Your task to perform on an android device: turn on notifications settings in the gmail app Image 0: 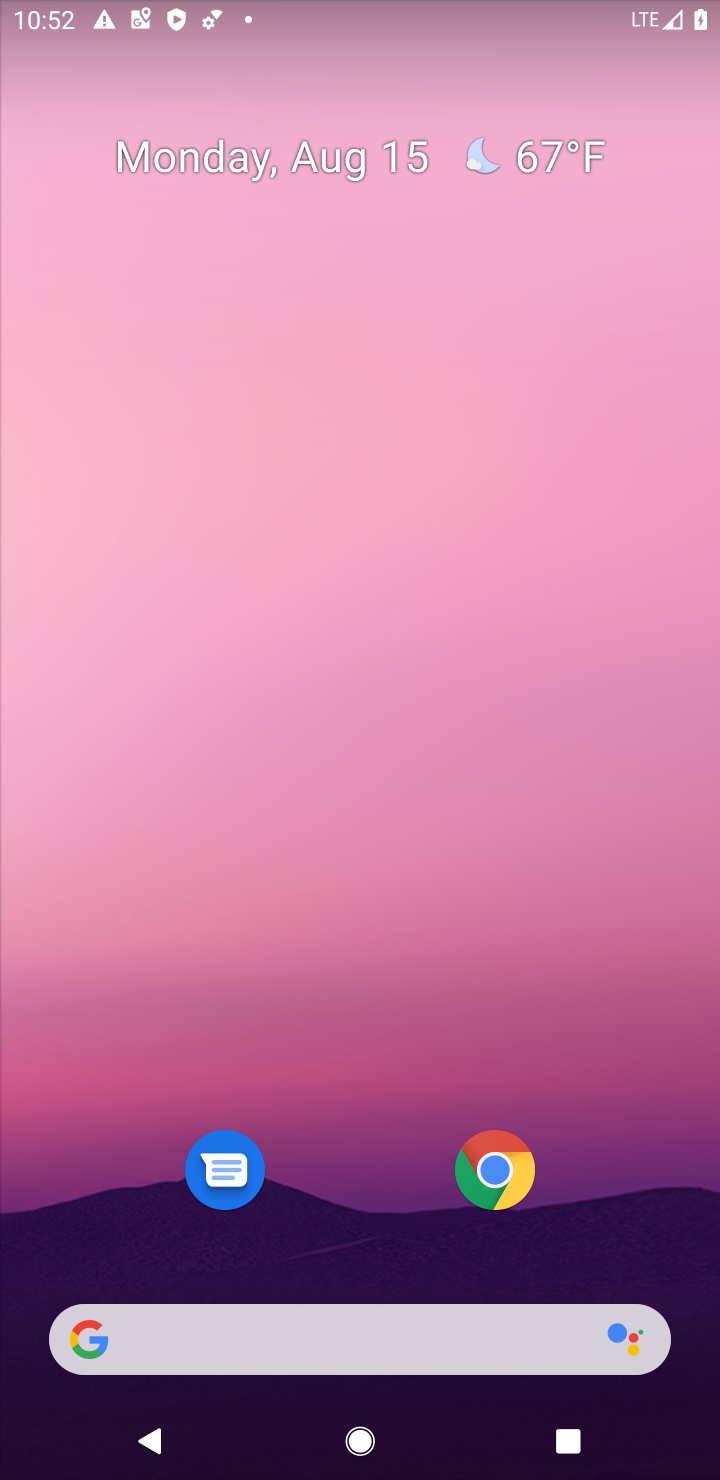
Step 0: press home button
Your task to perform on an android device: turn on notifications settings in the gmail app Image 1: 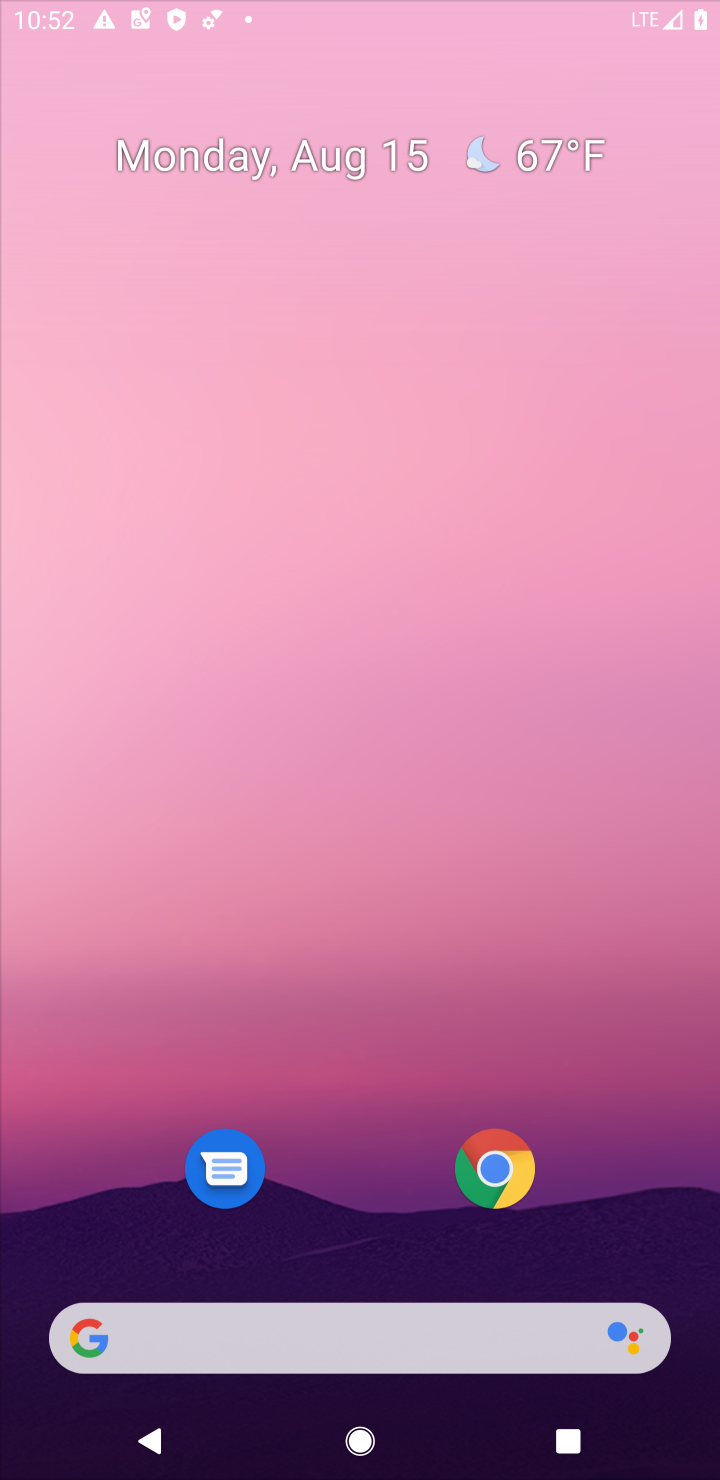
Step 1: drag from (405, 732) to (409, 0)
Your task to perform on an android device: turn on notifications settings in the gmail app Image 2: 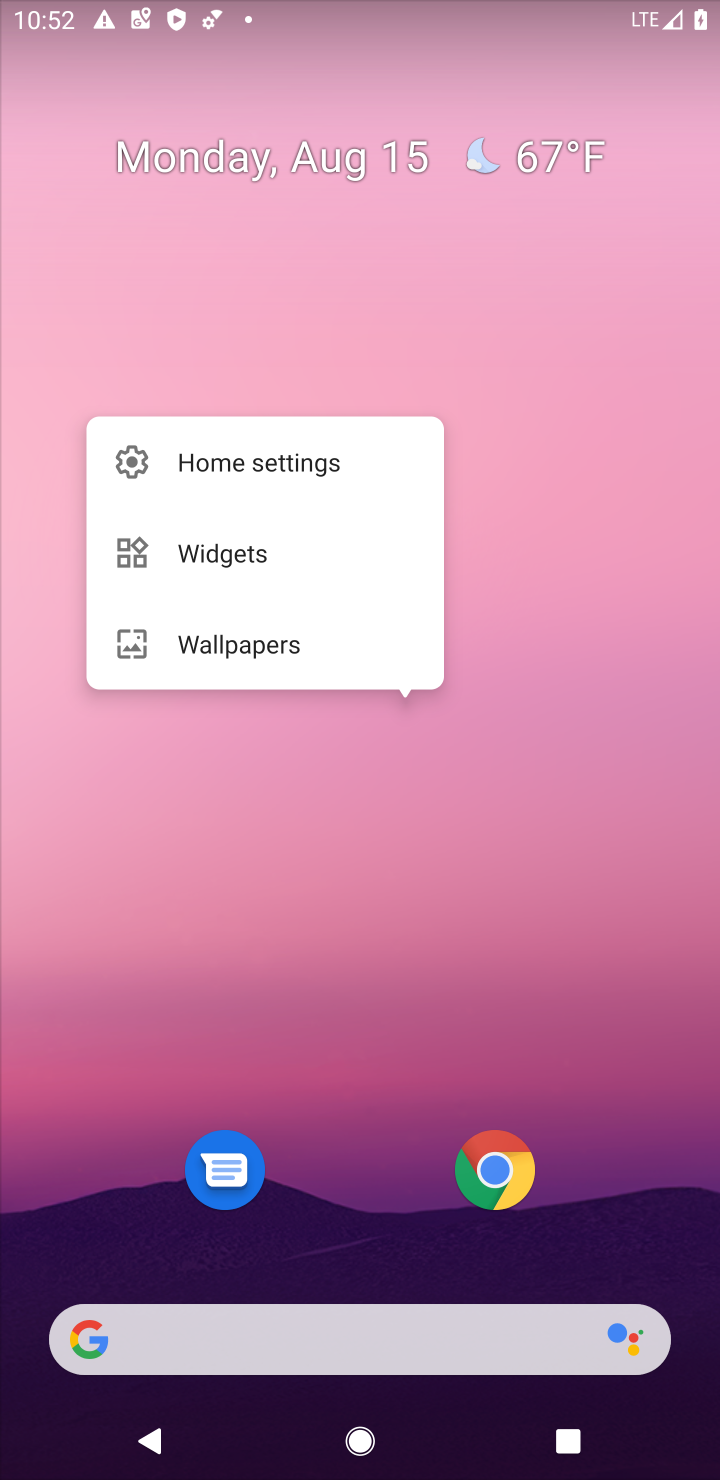
Step 2: click (391, 1029)
Your task to perform on an android device: turn on notifications settings in the gmail app Image 3: 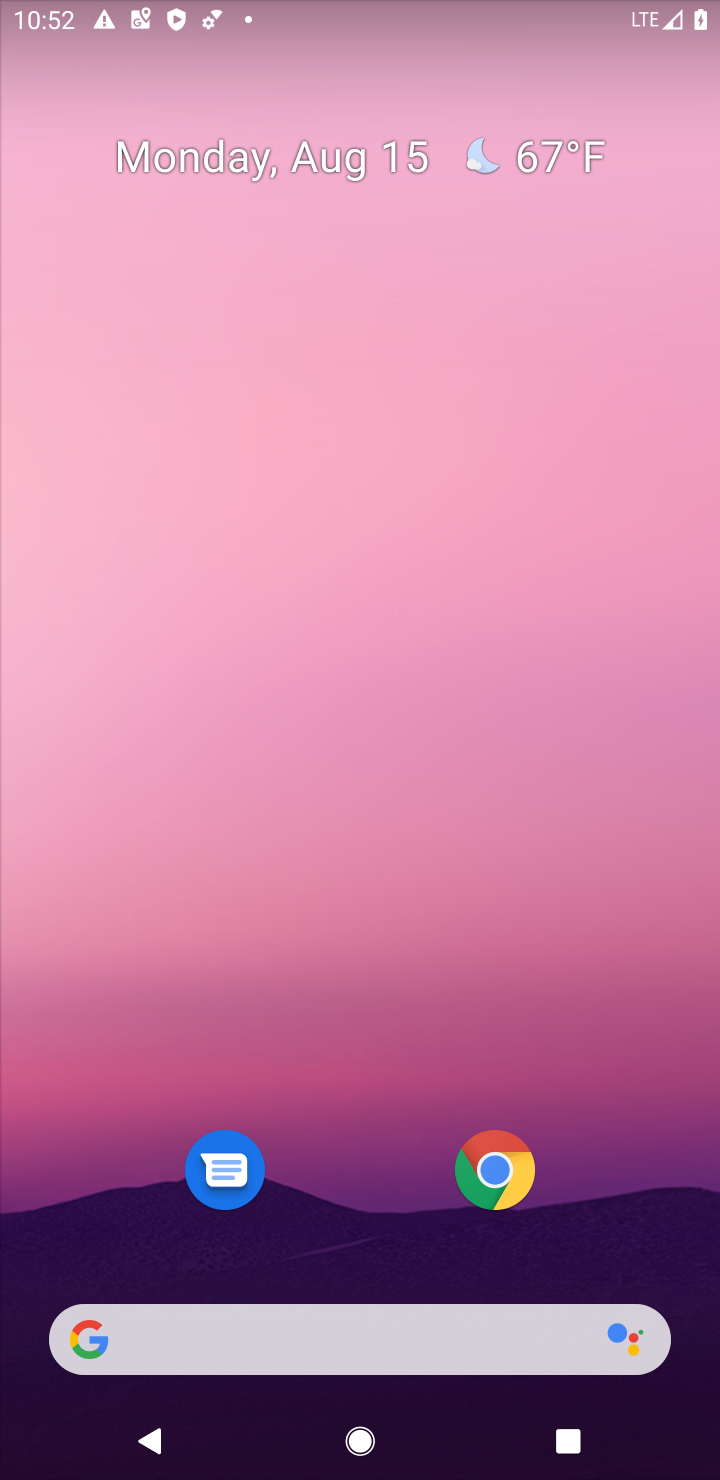
Step 3: drag from (391, 1239) to (445, 109)
Your task to perform on an android device: turn on notifications settings in the gmail app Image 4: 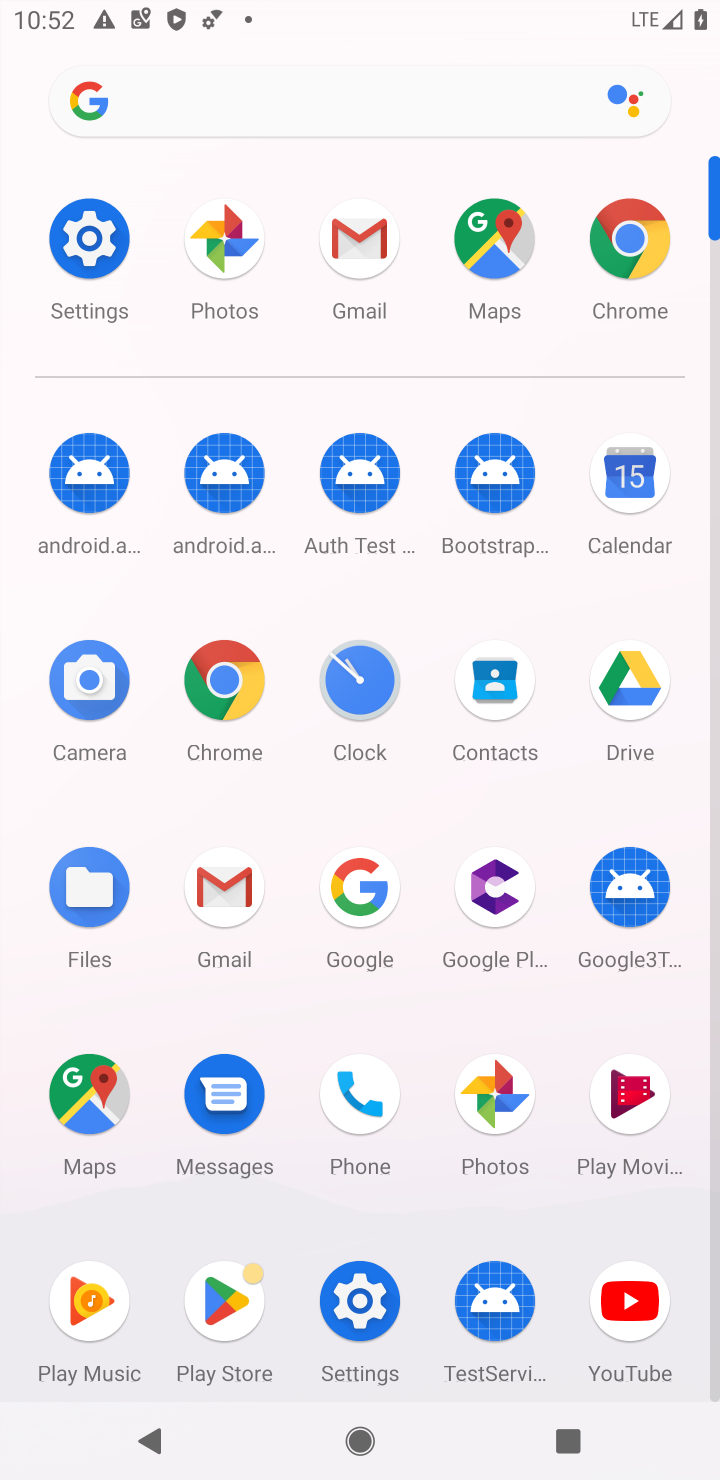
Step 4: click (386, 718)
Your task to perform on an android device: turn on notifications settings in the gmail app Image 5: 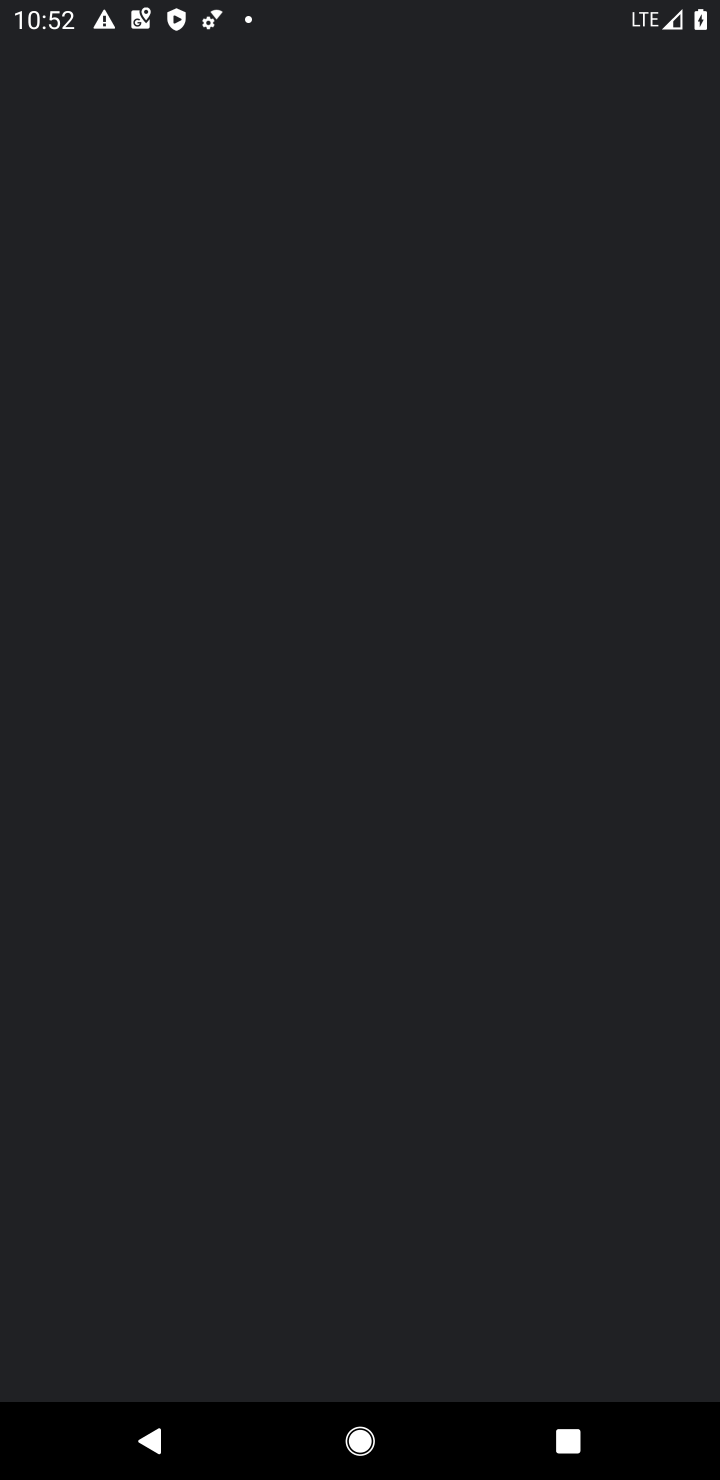
Step 5: click (234, 866)
Your task to perform on an android device: turn on notifications settings in the gmail app Image 6: 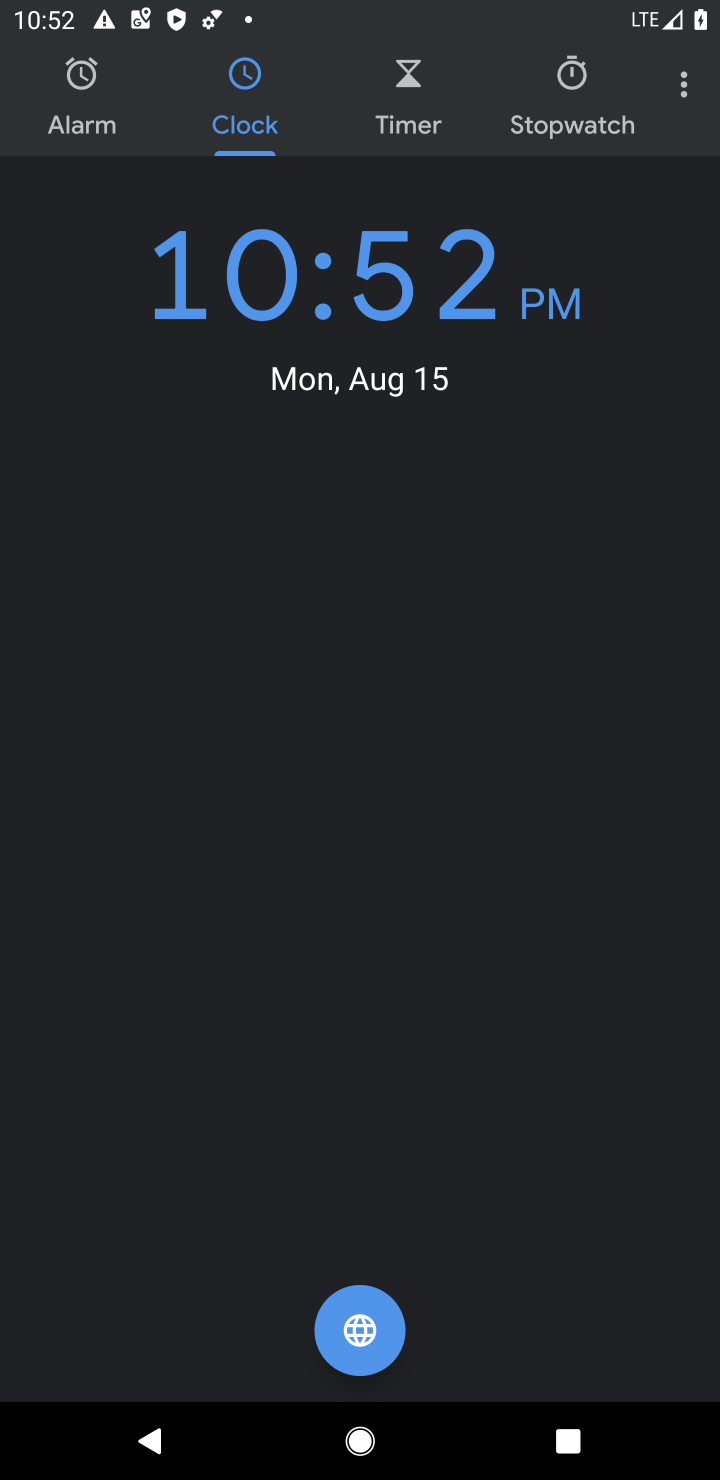
Step 6: press home button
Your task to perform on an android device: turn on notifications settings in the gmail app Image 7: 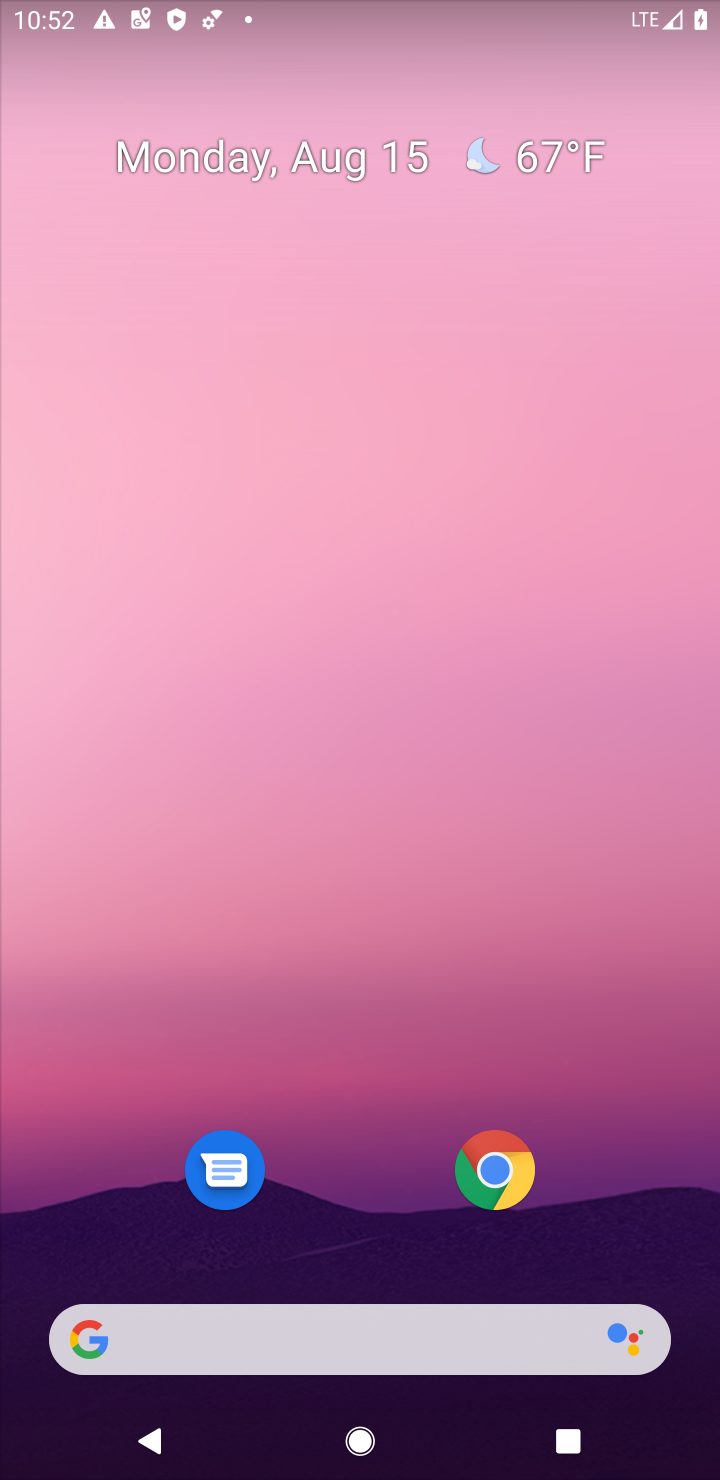
Step 7: drag from (392, 1180) to (434, 117)
Your task to perform on an android device: turn on notifications settings in the gmail app Image 8: 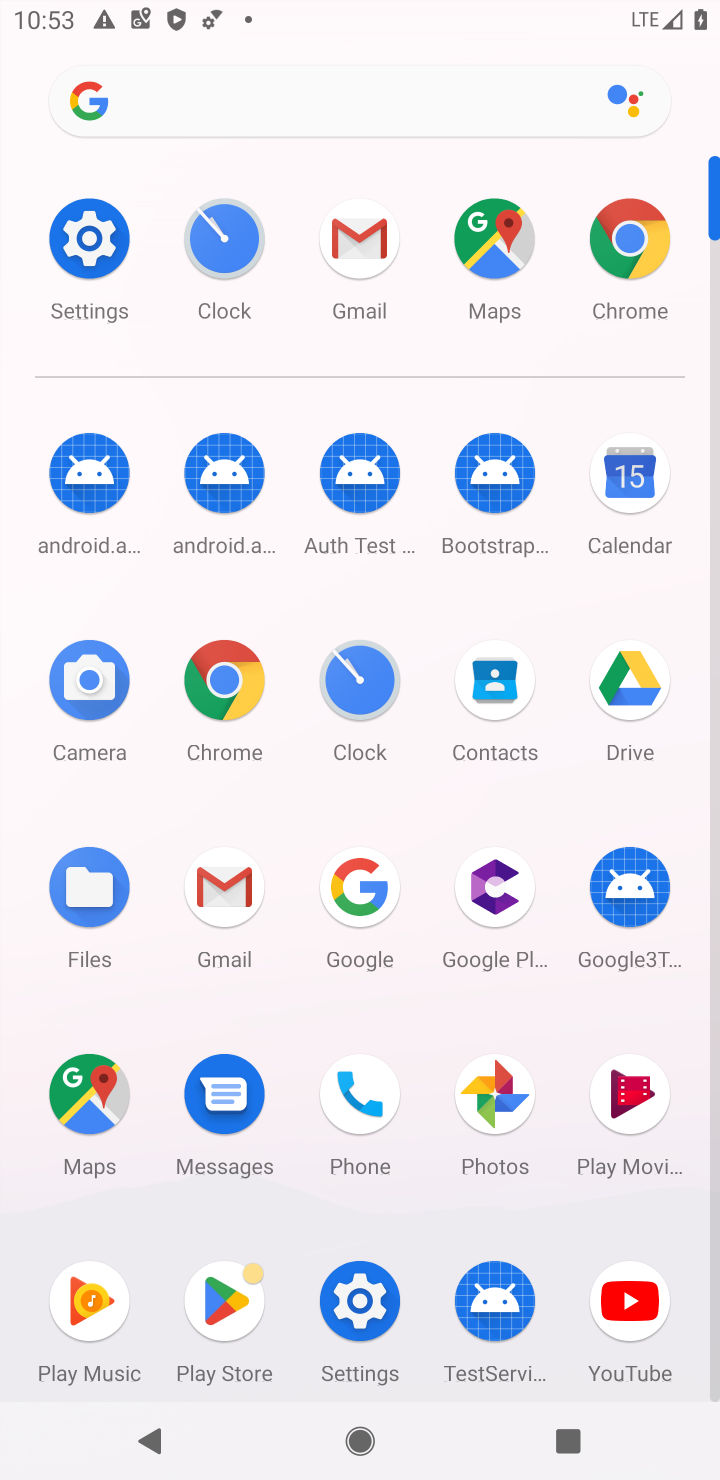
Step 8: click (211, 861)
Your task to perform on an android device: turn on notifications settings in the gmail app Image 9: 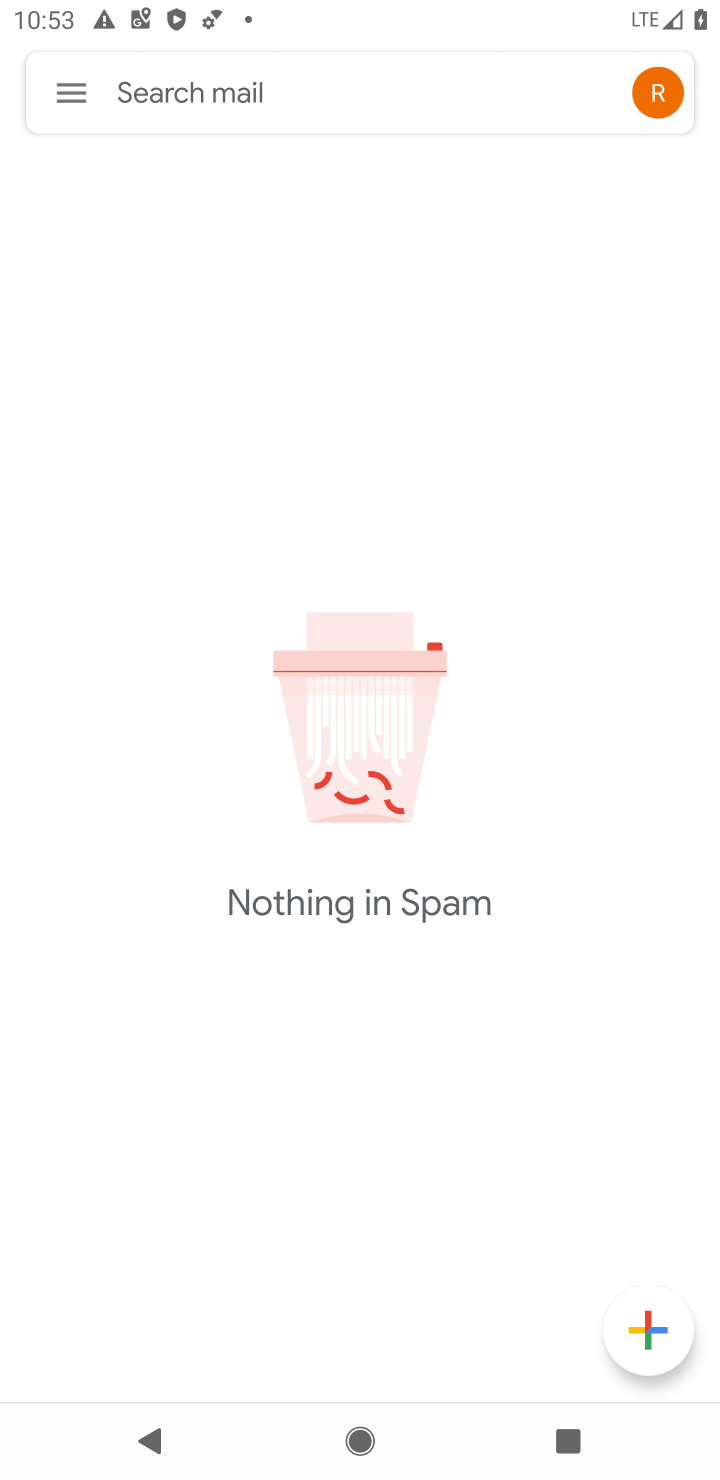
Step 9: click (65, 72)
Your task to perform on an android device: turn on notifications settings in the gmail app Image 10: 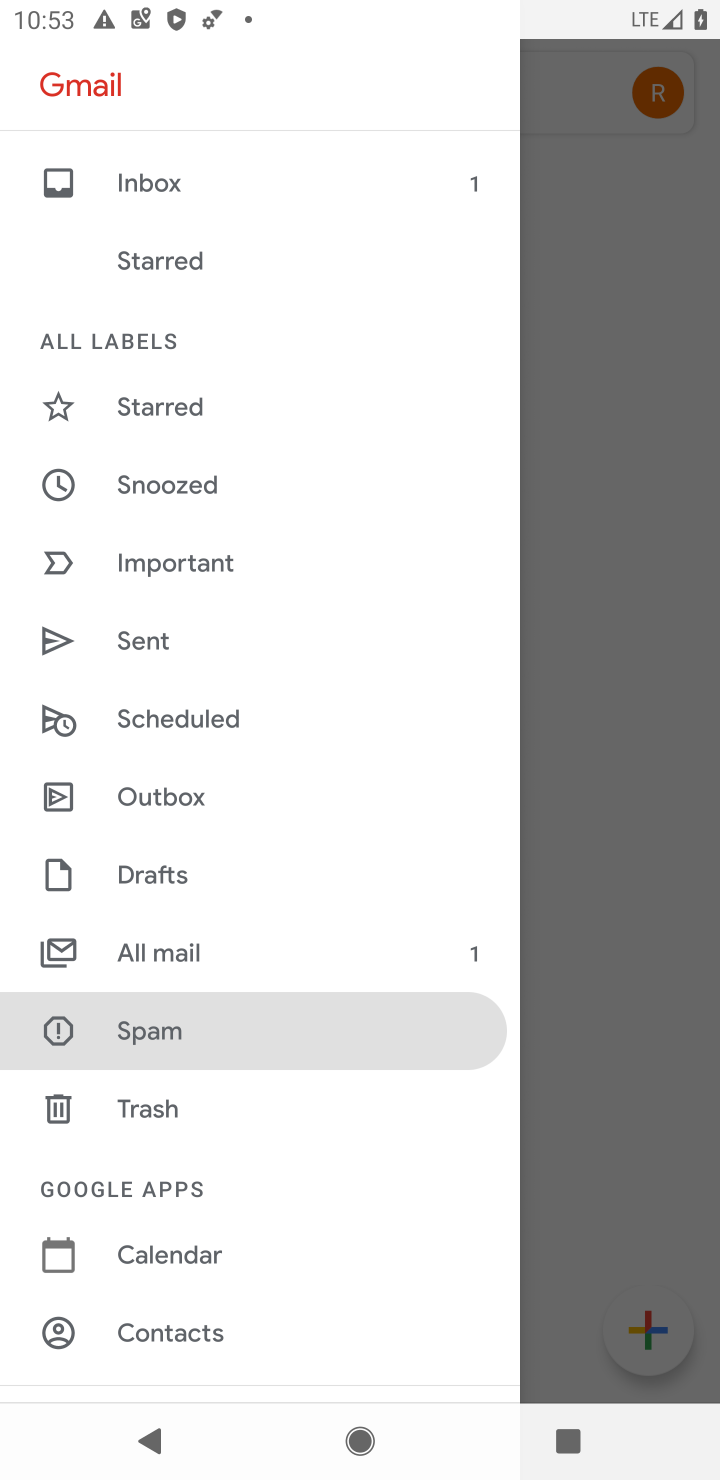
Step 10: drag from (153, 1305) to (168, 298)
Your task to perform on an android device: turn on notifications settings in the gmail app Image 11: 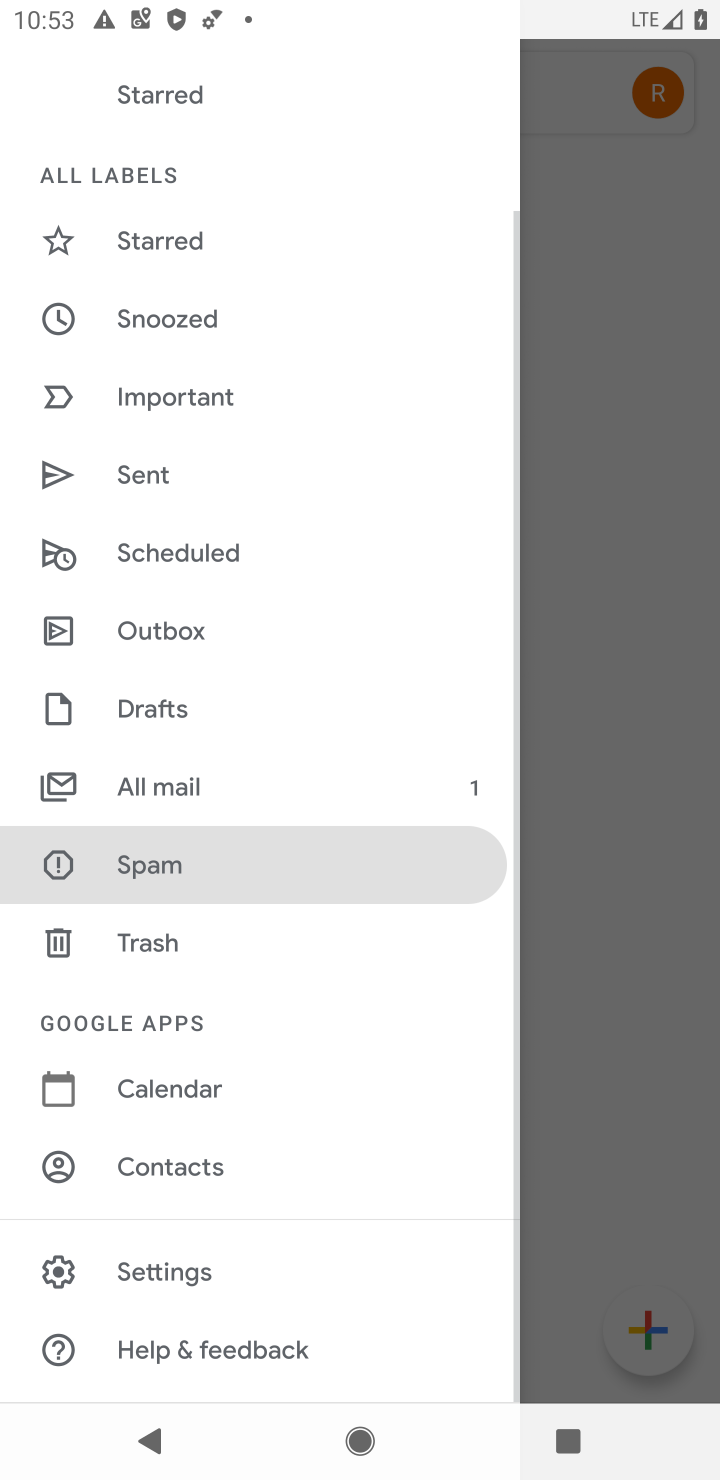
Step 11: click (171, 1272)
Your task to perform on an android device: turn on notifications settings in the gmail app Image 12: 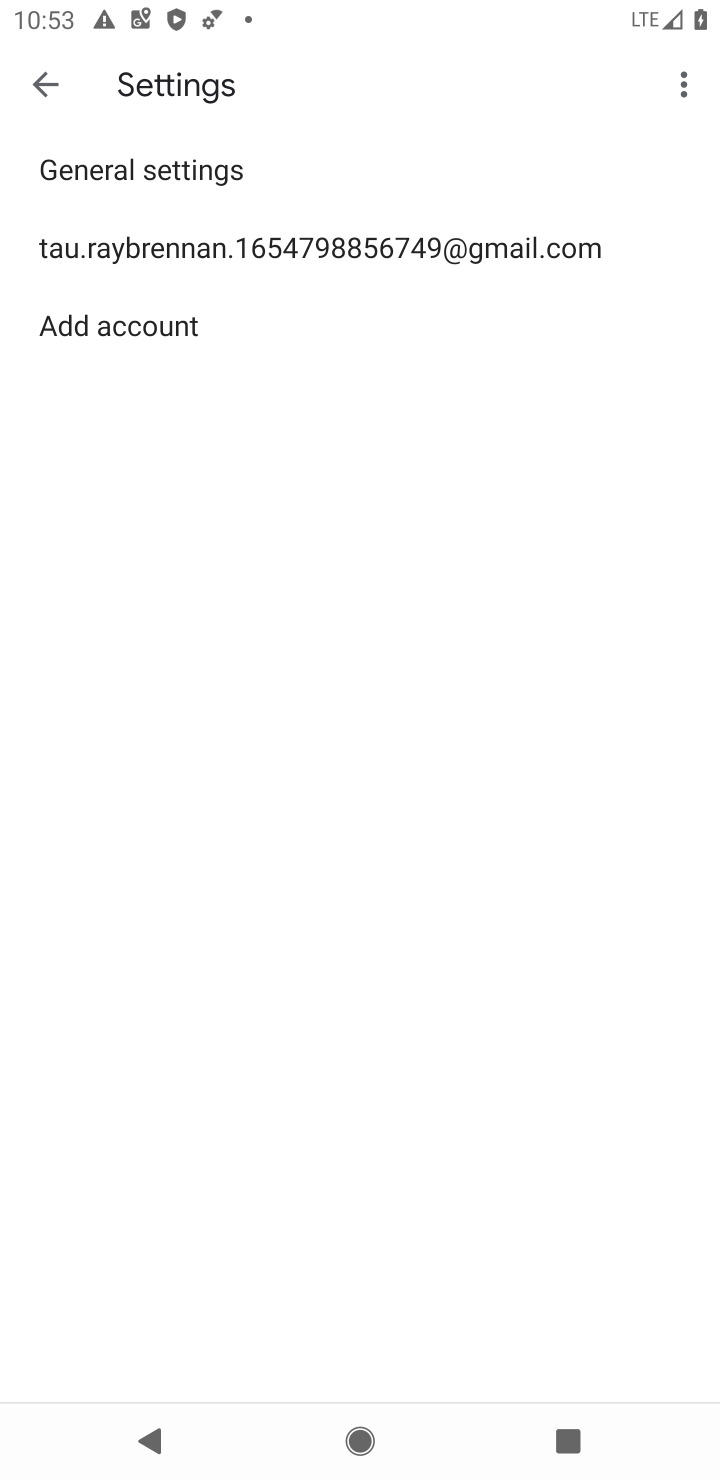
Step 12: click (146, 181)
Your task to perform on an android device: turn on notifications settings in the gmail app Image 13: 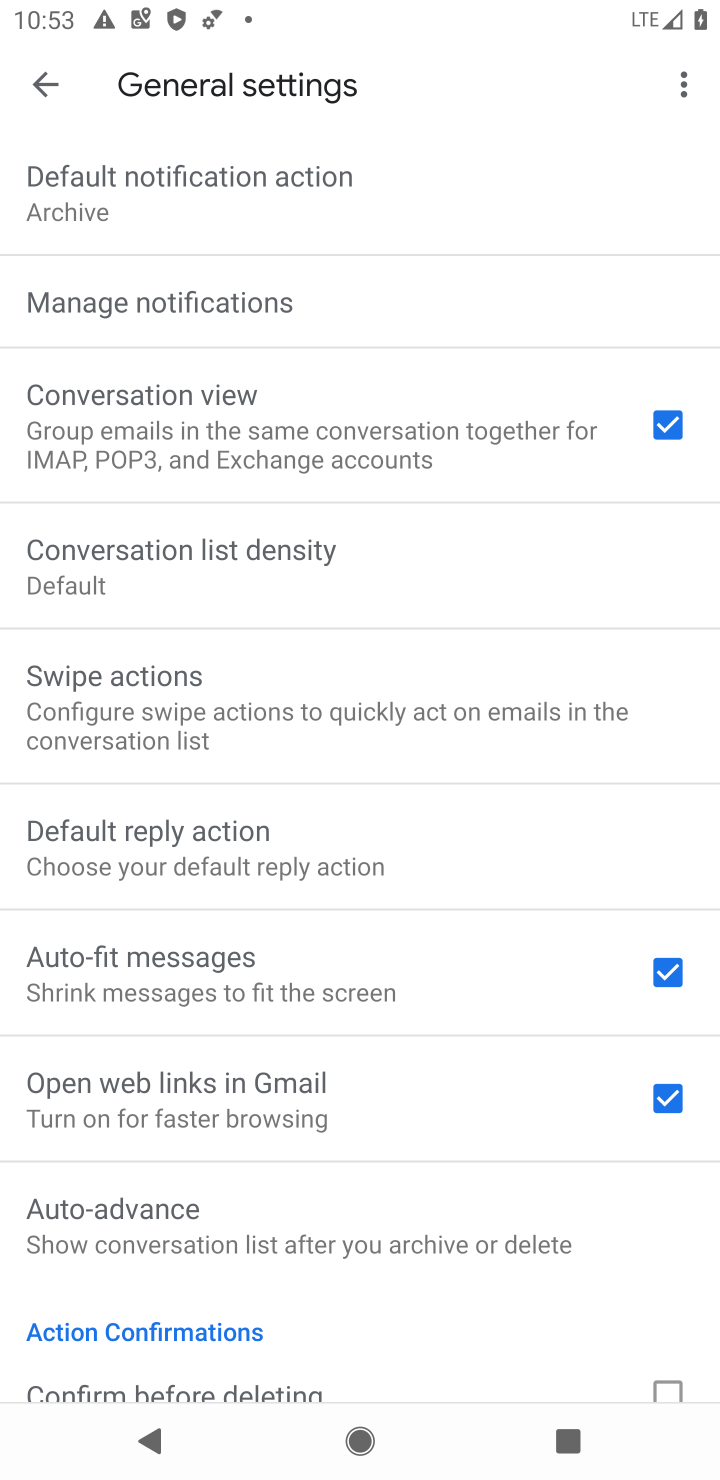
Step 13: click (216, 294)
Your task to perform on an android device: turn on notifications settings in the gmail app Image 14: 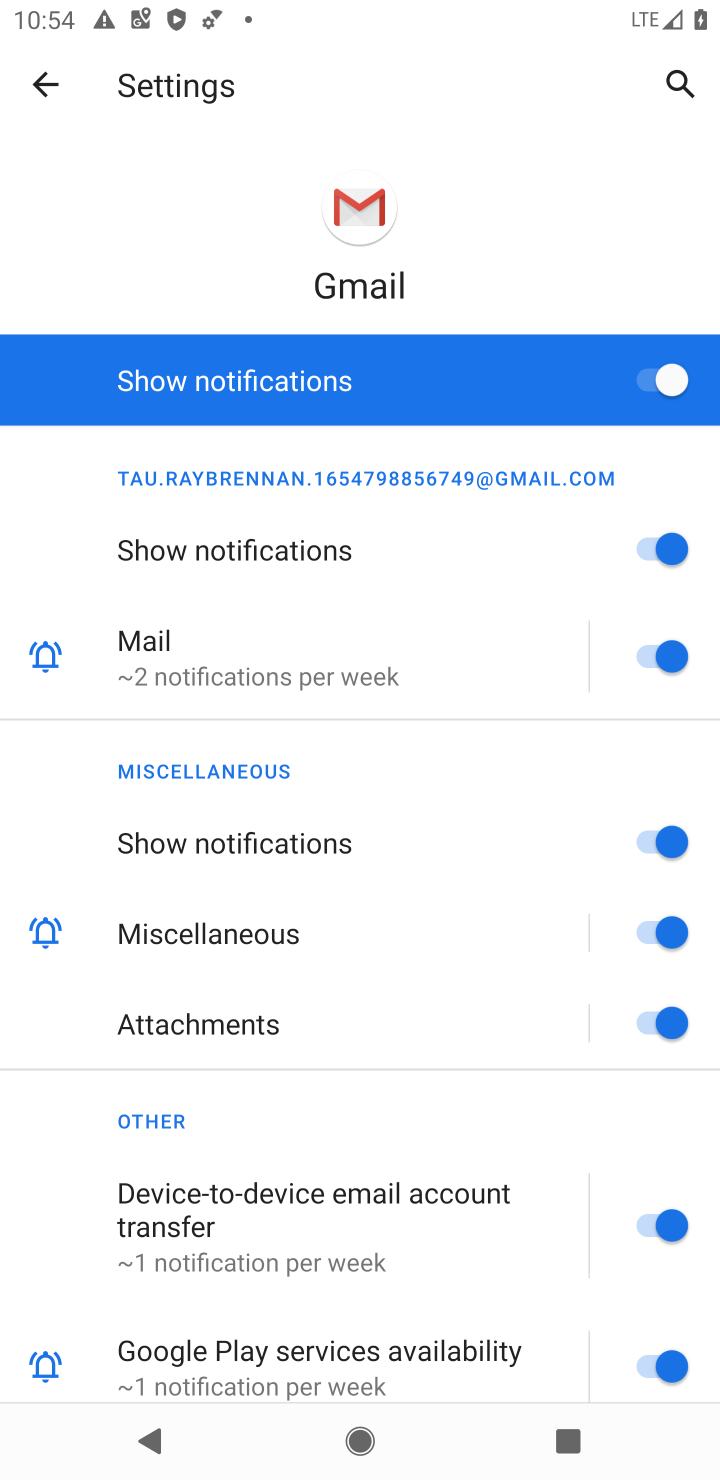
Step 14: task complete